Your task to perform on an android device: turn smart compose on in the gmail app Image 0: 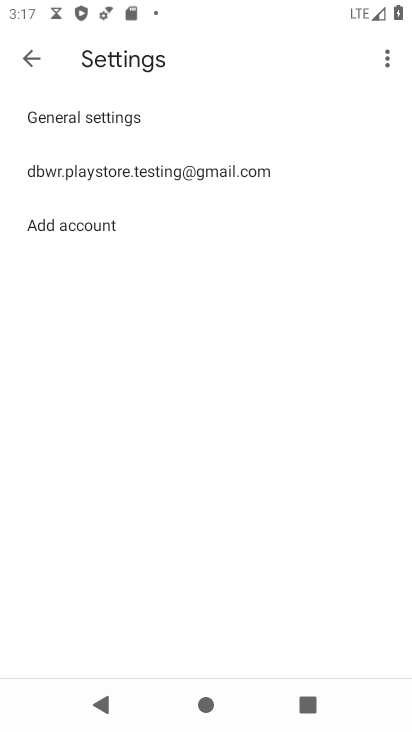
Step 0: click (97, 167)
Your task to perform on an android device: turn smart compose on in the gmail app Image 1: 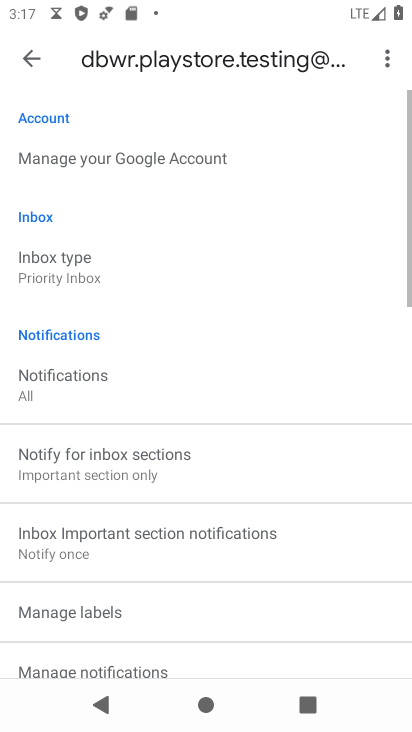
Step 1: task complete